Your task to perform on an android device: turn on sleep mode Image 0: 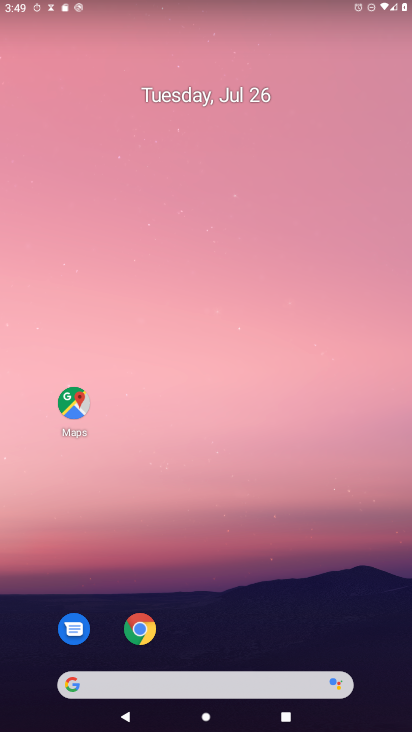
Step 0: drag from (251, 692) to (339, 116)
Your task to perform on an android device: turn on sleep mode Image 1: 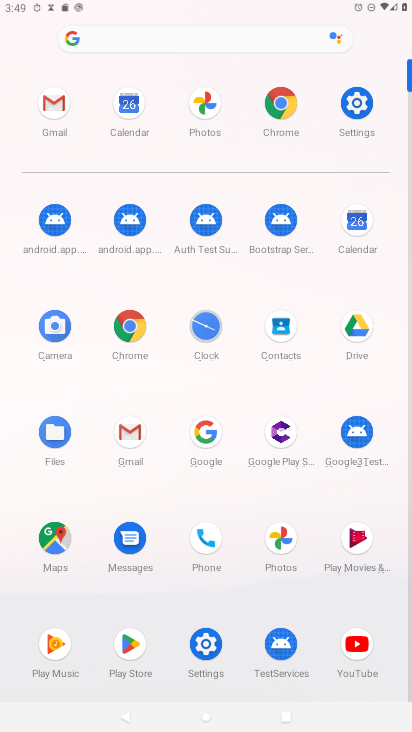
Step 1: click (361, 99)
Your task to perform on an android device: turn on sleep mode Image 2: 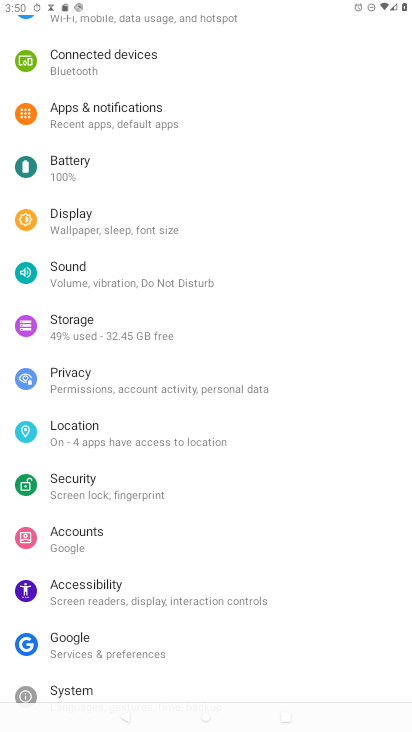
Step 2: click (147, 220)
Your task to perform on an android device: turn on sleep mode Image 3: 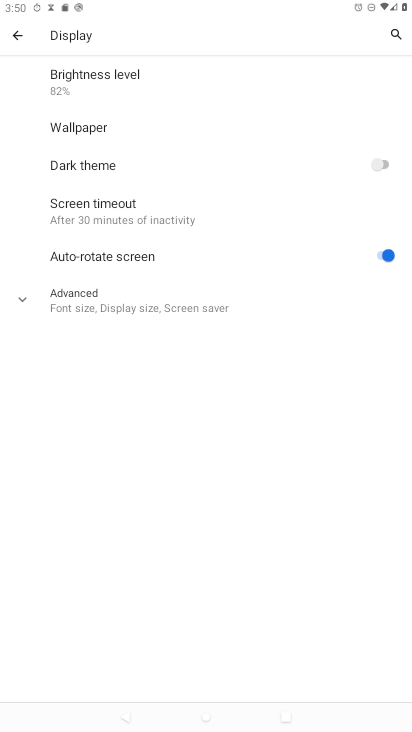
Step 3: task complete